Your task to perform on an android device: Add panasonic triple a to the cart on costco.com, then select checkout. Image 0: 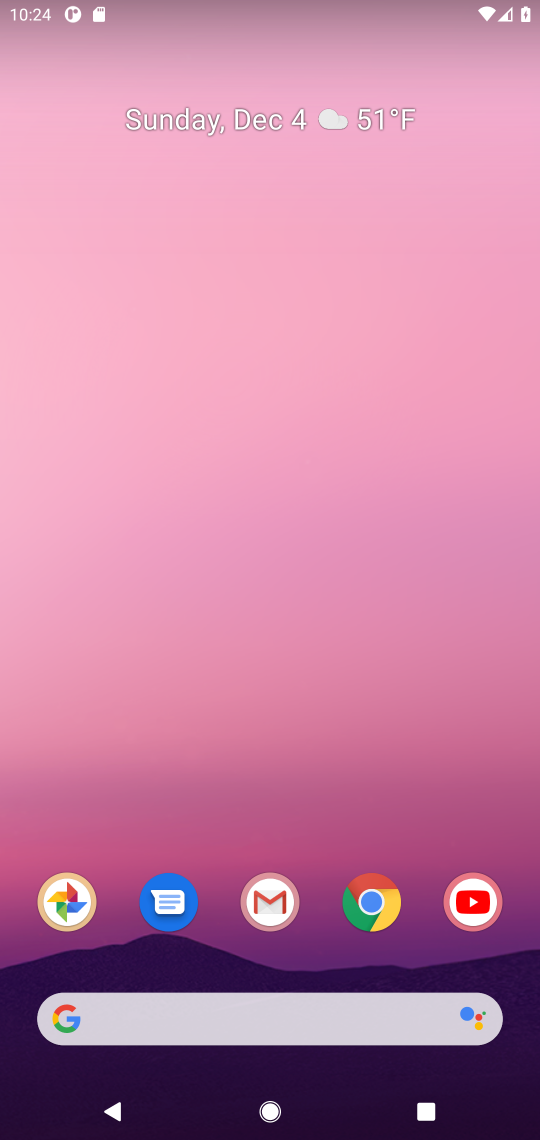
Step 0: click (363, 909)
Your task to perform on an android device: Add panasonic triple a to the cart on costco.com, then select checkout. Image 1: 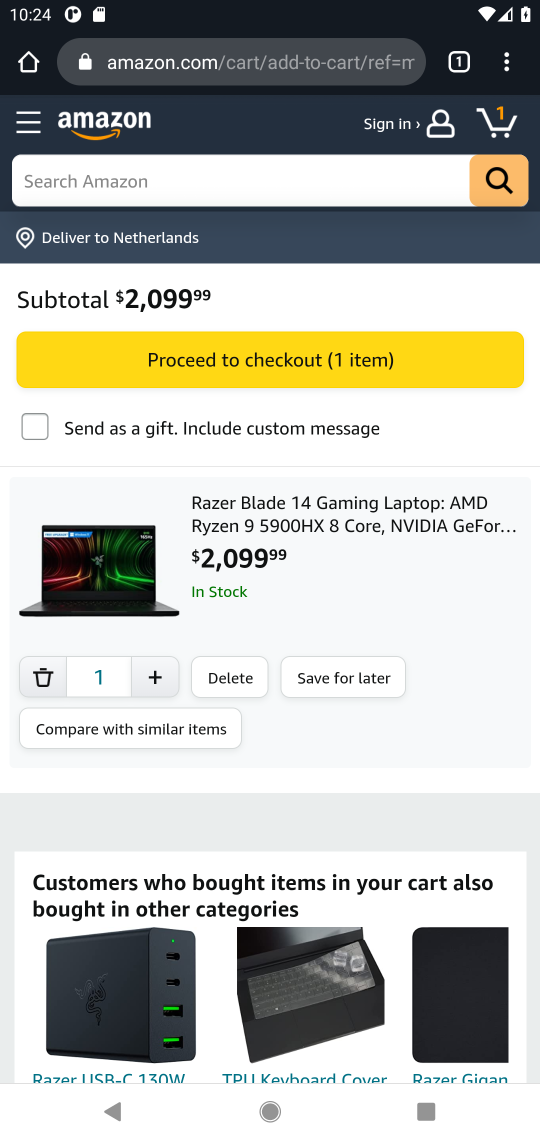
Step 1: click (195, 68)
Your task to perform on an android device: Add panasonic triple a to the cart on costco.com, then select checkout. Image 2: 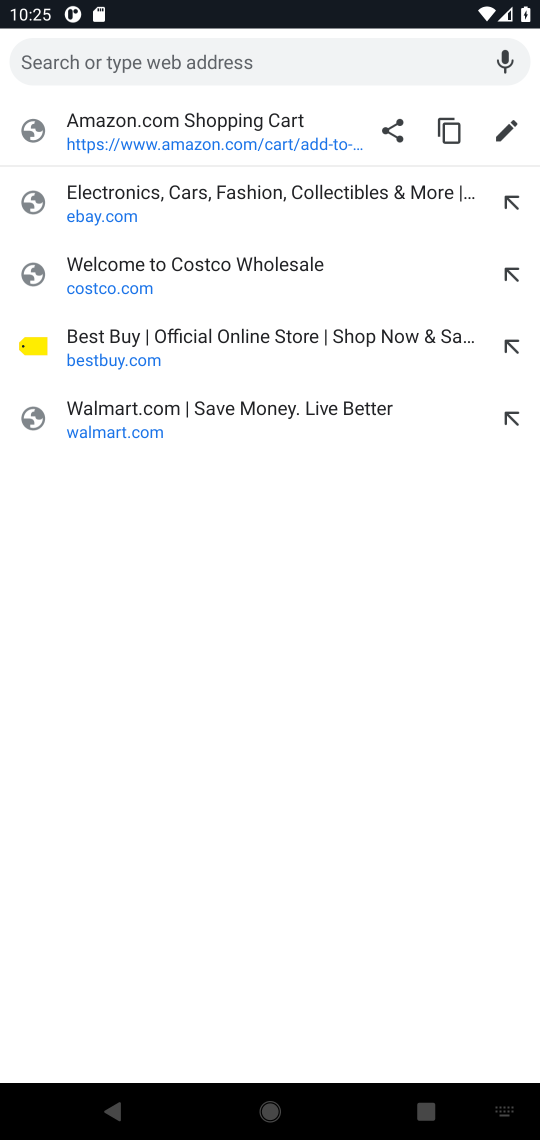
Step 2: click (143, 305)
Your task to perform on an android device: Add panasonic triple a to the cart on costco.com, then select checkout. Image 3: 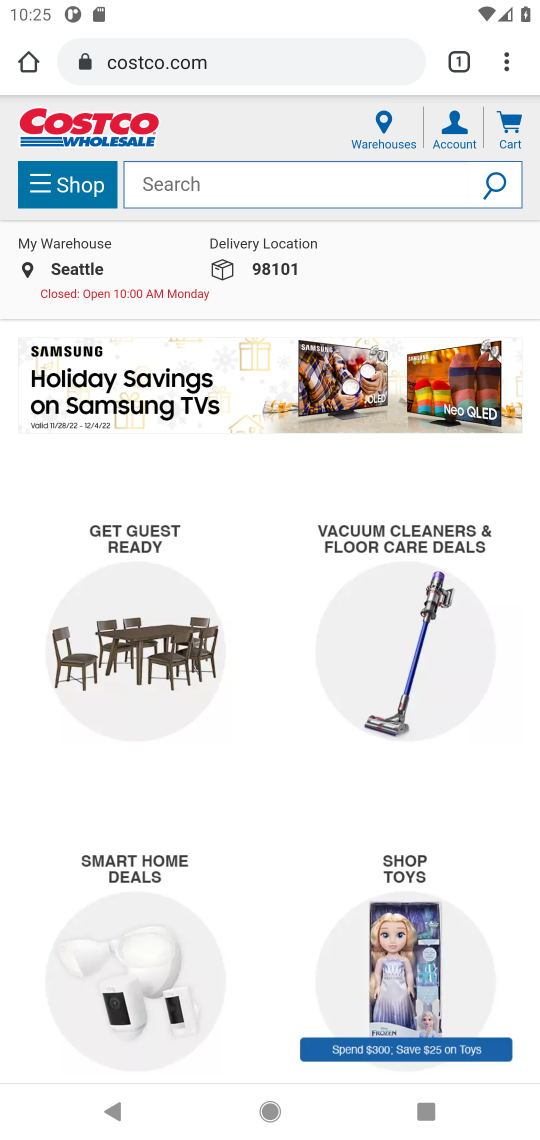
Step 3: click (220, 188)
Your task to perform on an android device: Add panasonic triple a to the cart on costco.com, then select checkout. Image 4: 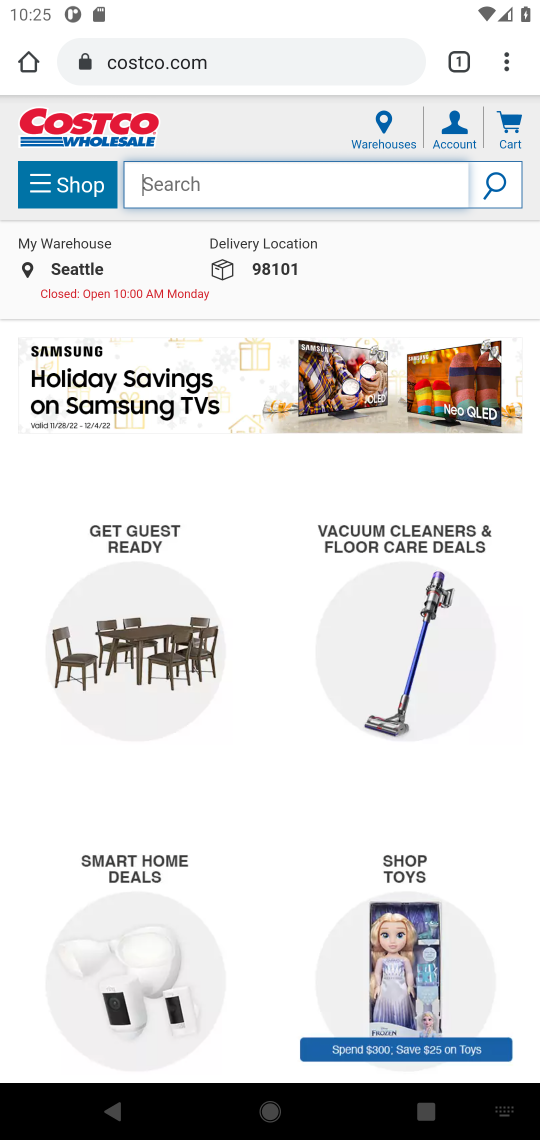
Step 4: type " panasonic triple a"
Your task to perform on an android device: Add panasonic triple a to the cart on costco.com, then select checkout. Image 5: 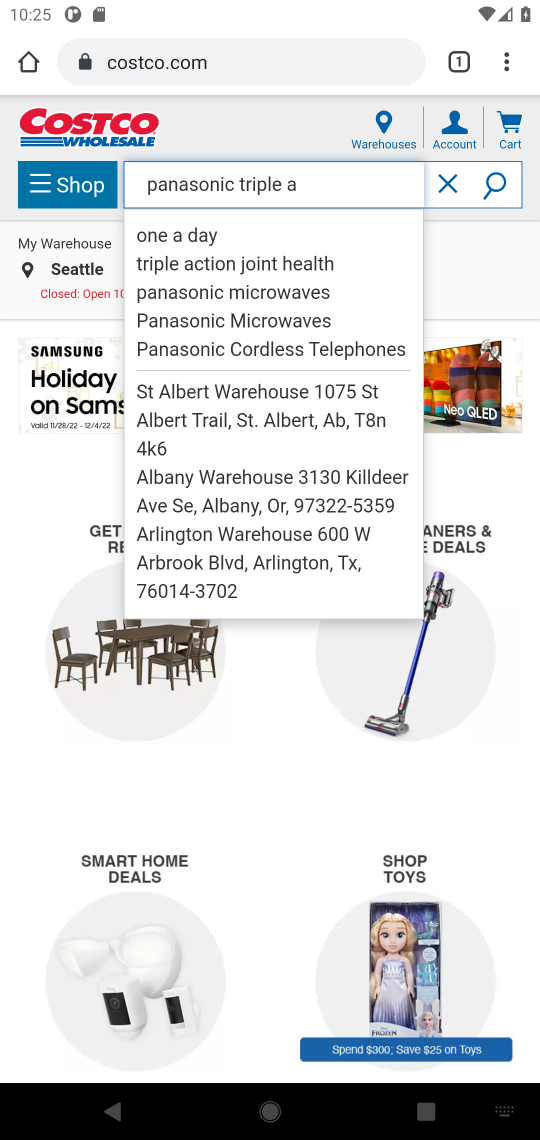
Step 5: click (477, 183)
Your task to perform on an android device: Add panasonic triple a to the cart on costco.com, then select checkout. Image 6: 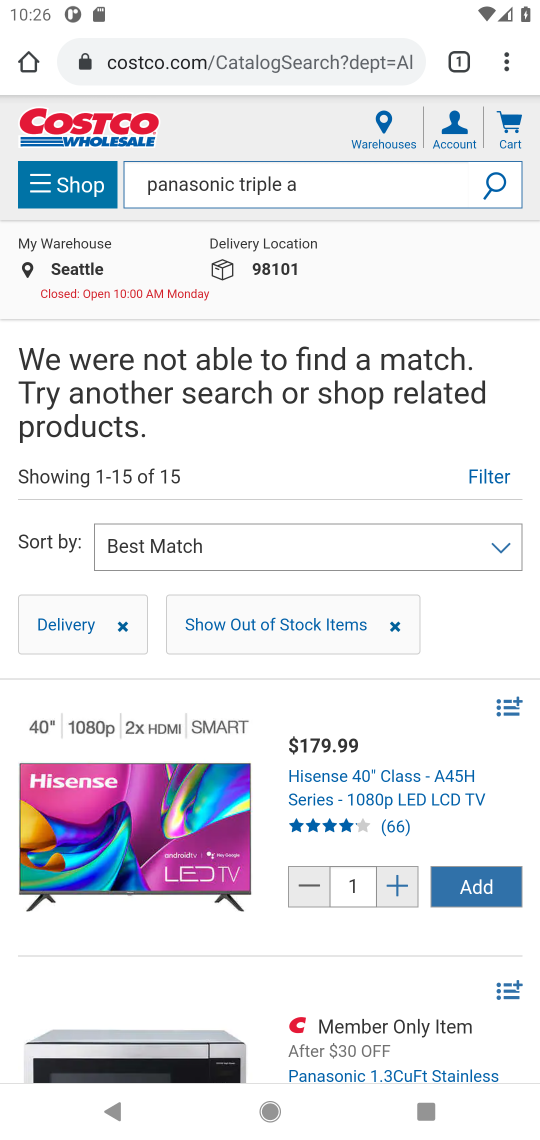
Step 6: task complete